Your task to perform on an android device: add a contact Image 0: 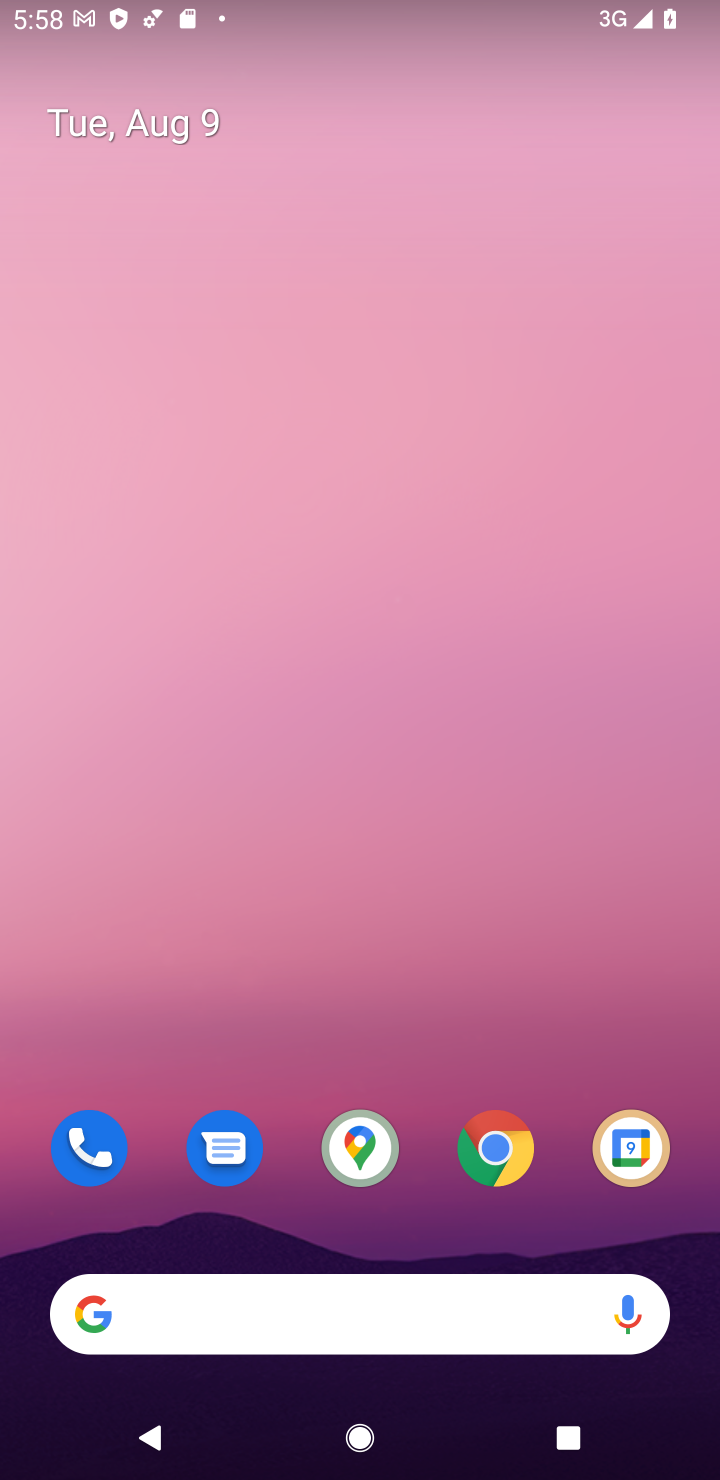
Step 0: drag from (331, 908) to (390, 297)
Your task to perform on an android device: add a contact Image 1: 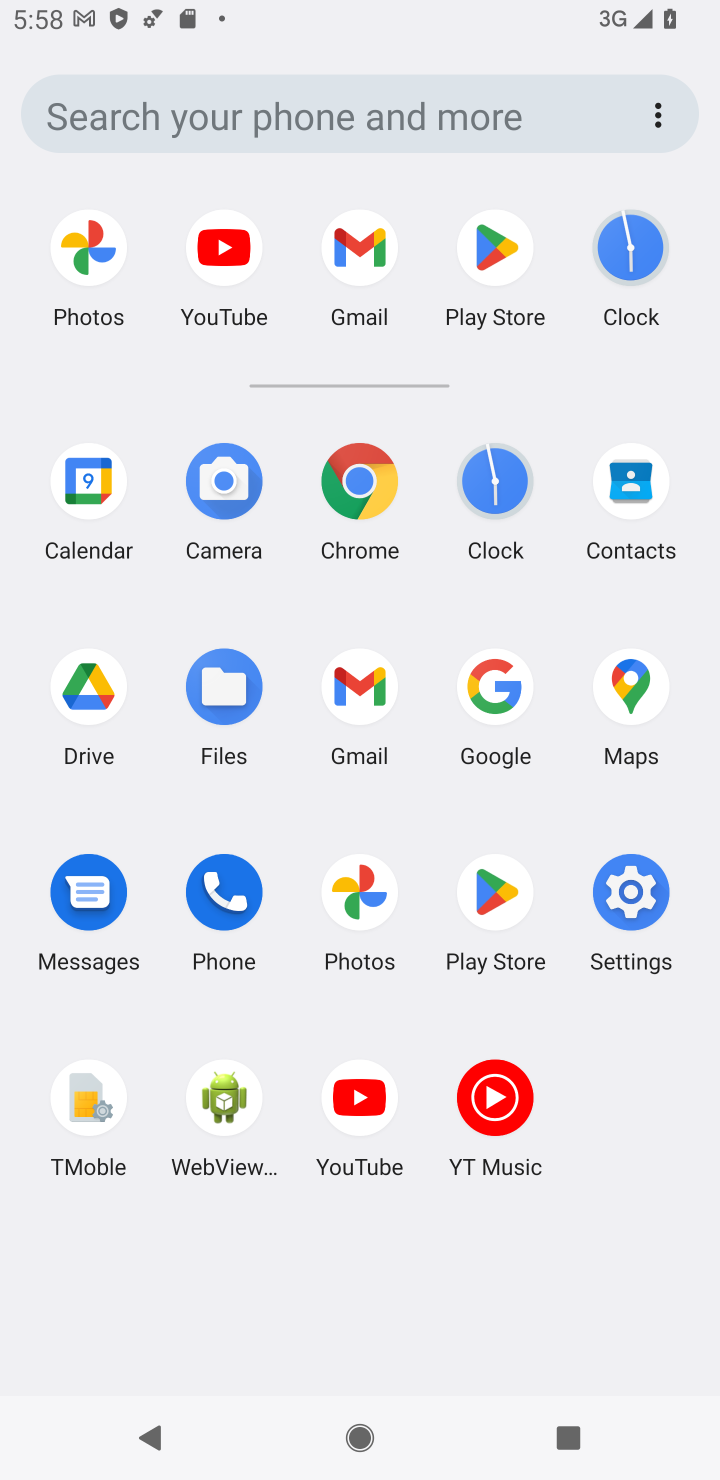
Step 1: click (610, 507)
Your task to perform on an android device: add a contact Image 2: 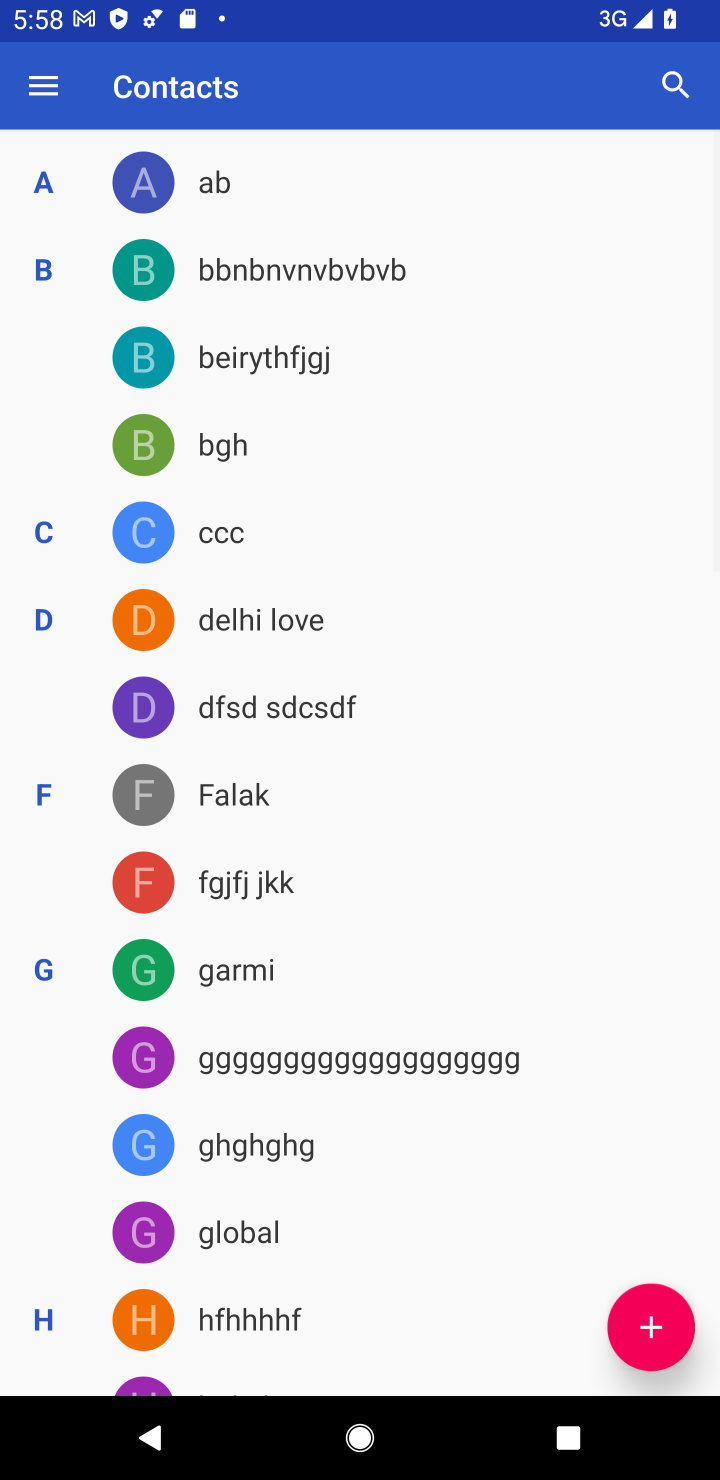
Step 2: click (649, 1341)
Your task to perform on an android device: add a contact Image 3: 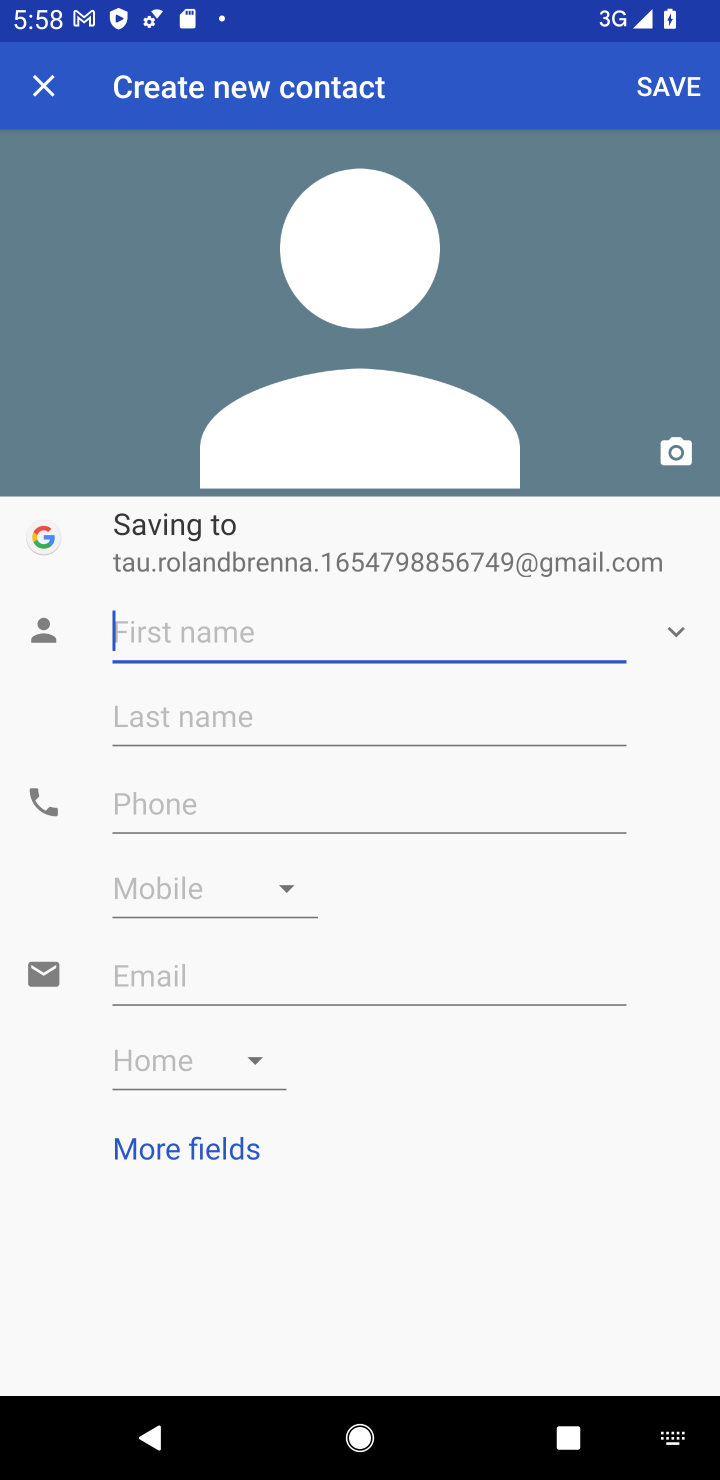
Step 3: type "fighter"
Your task to perform on an android device: add a contact Image 4: 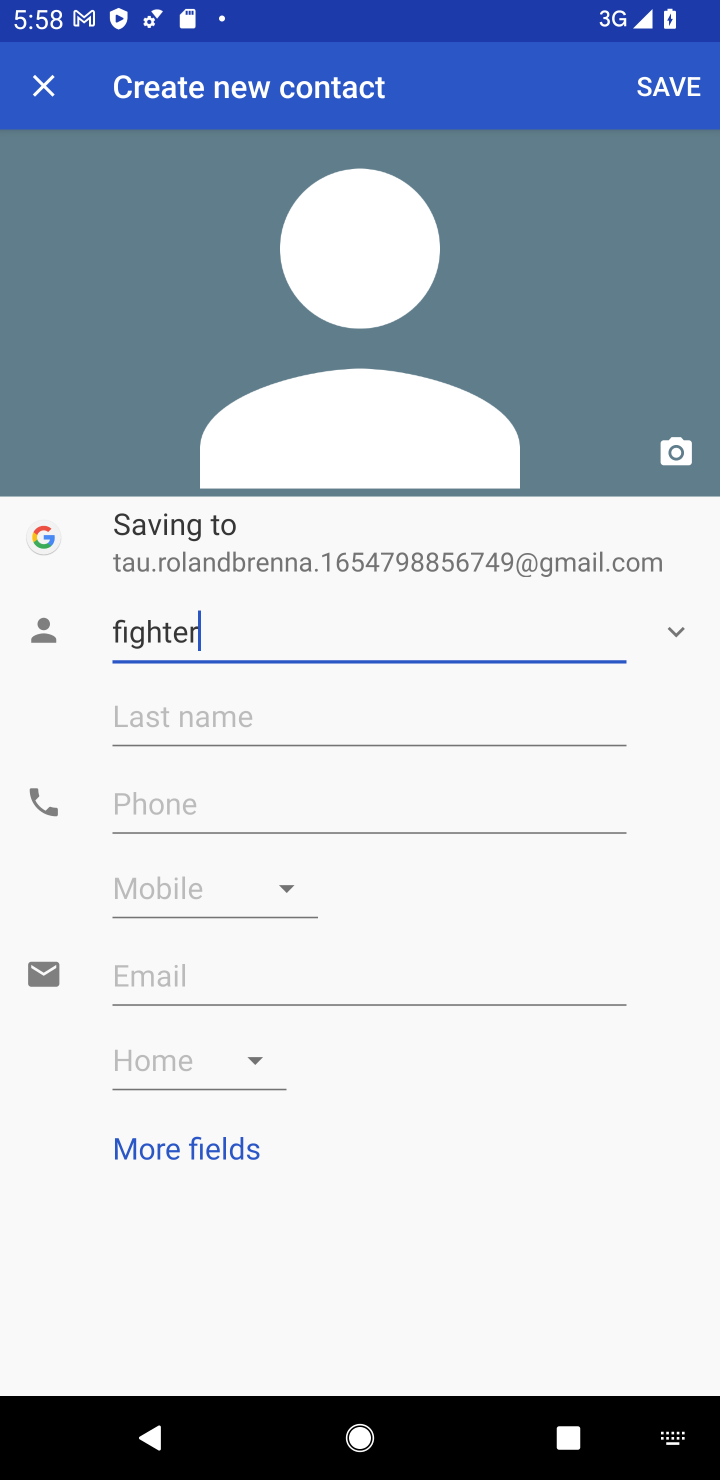
Step 4: click (660, 80)
Your task to perform on an android device: add a contact Image 5: 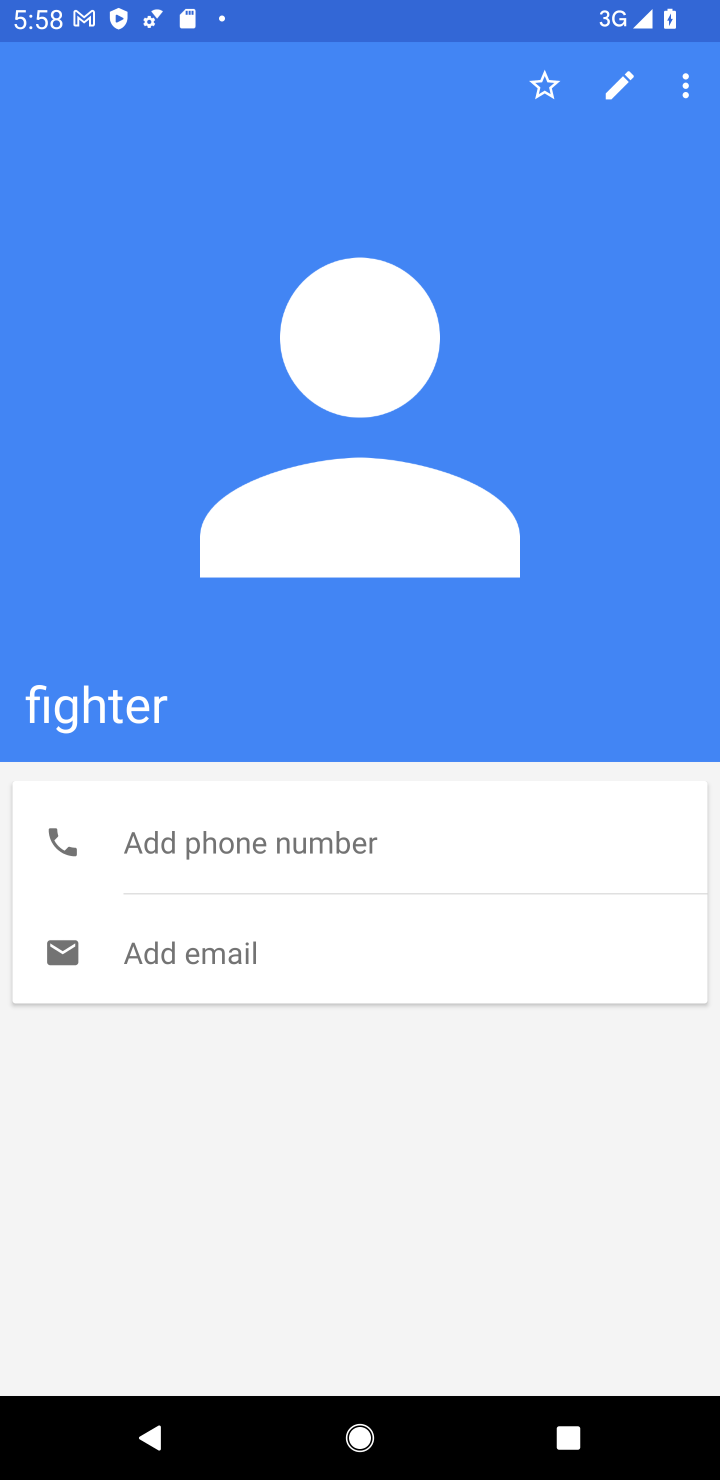
Step 5: task complete